Your task to perform on an android device: change the clock display to show seconds Image 0: 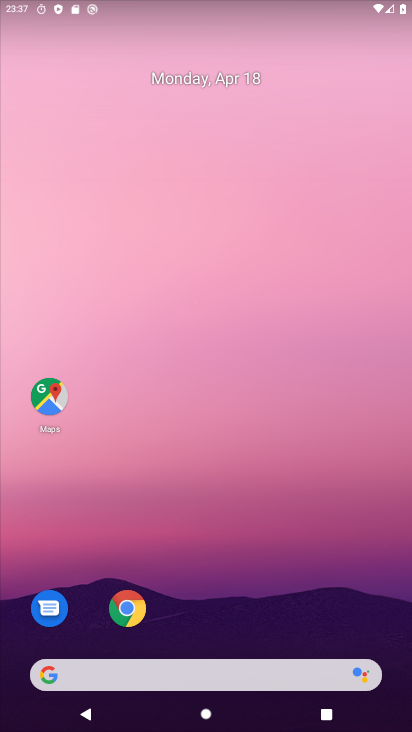
Step 0: drag from (259, 513) to (273, 109)
Your task to perform on an android device: change the clock display to show seconds Image 1: 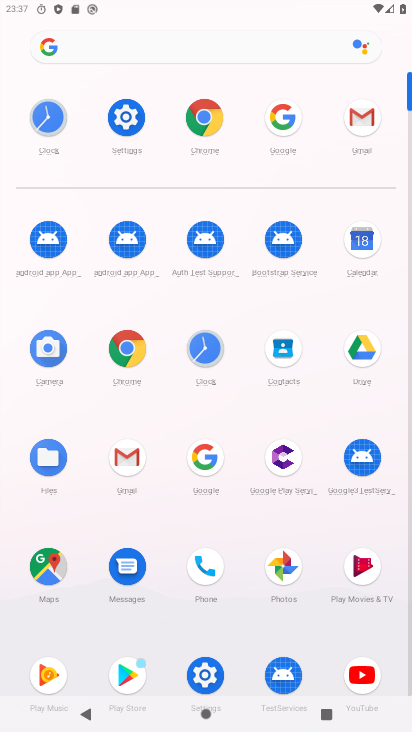
Step 1: click (206, 355)
Your task to perform on an android device: change the clock display to show seconds Image 2: 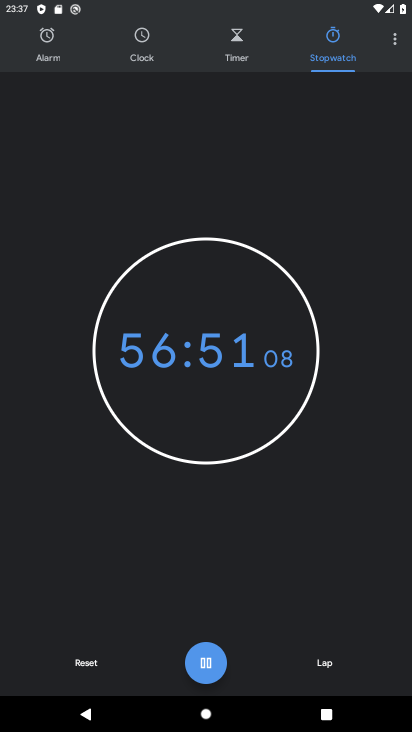
Step 2: click (390, 42)
Your task to perform on an android device: change the clock display to show seconds Image 3: 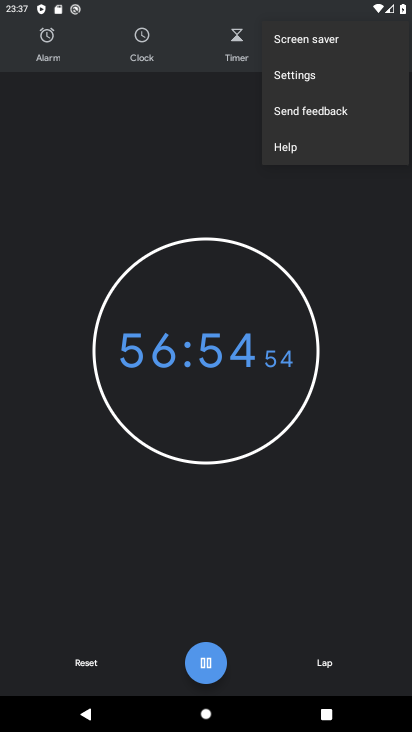
Step 3: click (304, 75)
Your task to perform on an android device: change the clock display to show seconds Image 4: 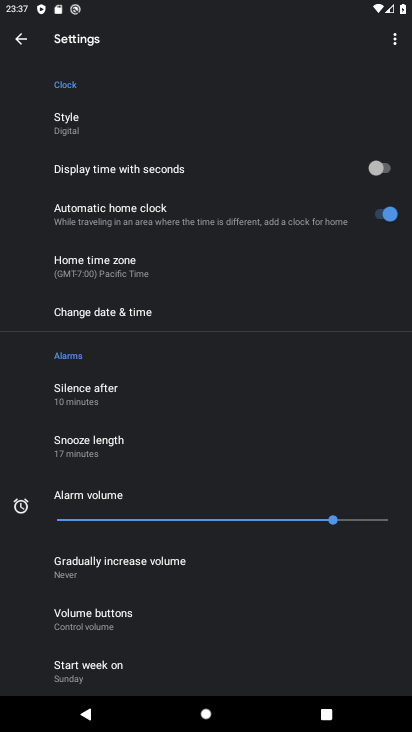
Step 4: drag from (199, 471) to (227, 344)
Your task to perform on an android device: change the clock display to show seconds Image 5: 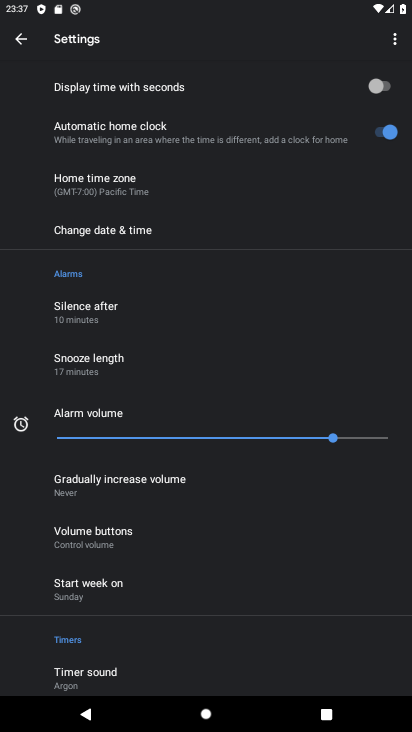
Step 5: click (372, 88)
Your task to perform on an android device: change the clock display to show seconds Image 6: 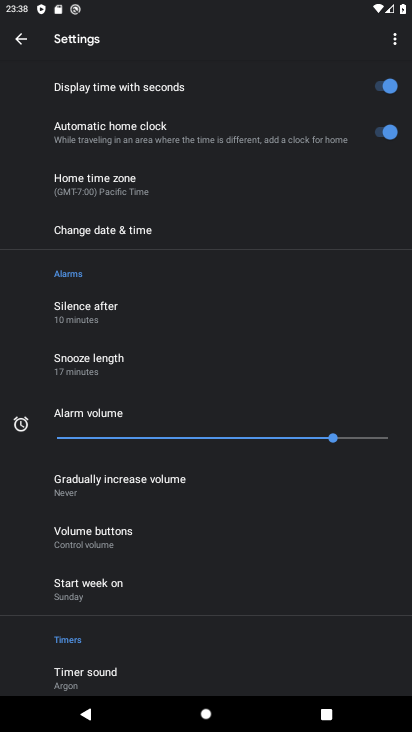
Step 6: task complete